Your task to perform on an android device: turn off javascript in the chrome app Image 0: 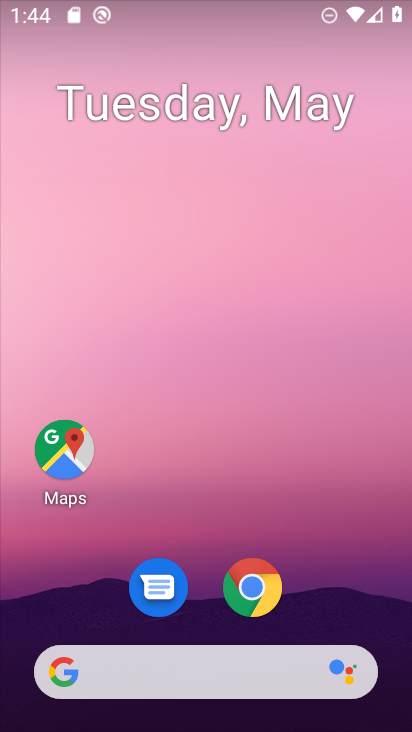
Step 0: click (251, 592)
Your task to perform on an android device: turn off javascript in the chrome app Image 1: 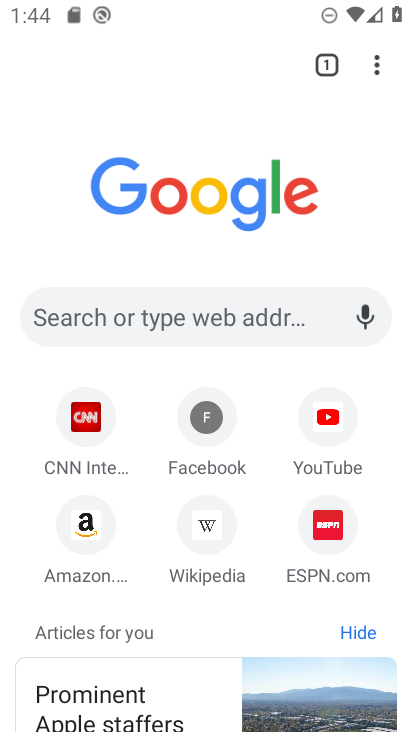
Step 1: click (367, 54)
Your task to perform on an android device: turn off javascript in the chrome app Image 2: 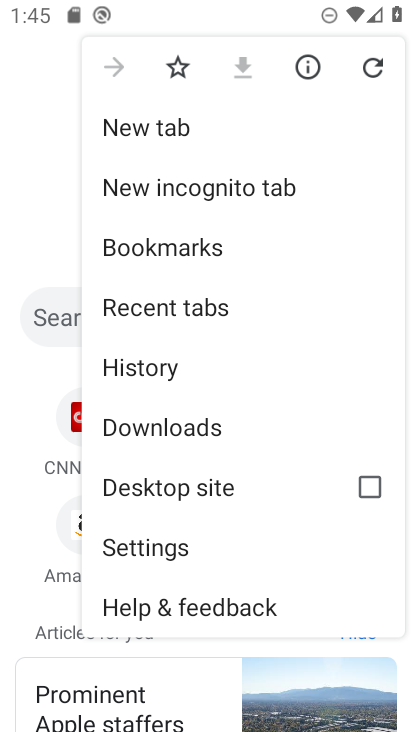
Step 2: click (205, 558)
Your task to perform on an android device: turn off javascript in the chrome app Image 3: 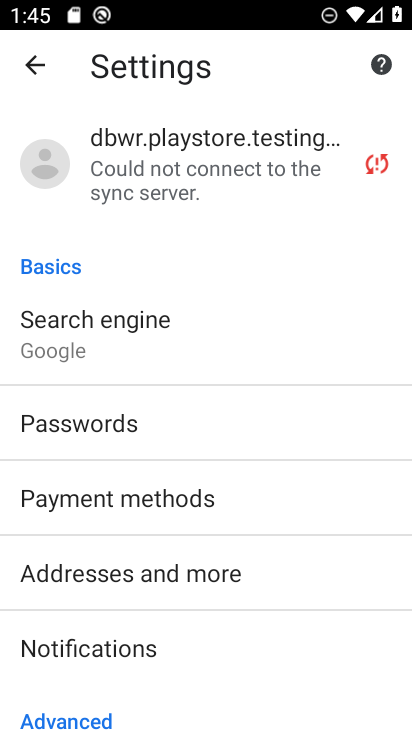
Step 3: drag from (183, 673) to (229, 112)
Your task to perform on an android device: turn off javascript in the chrome app Image 4: 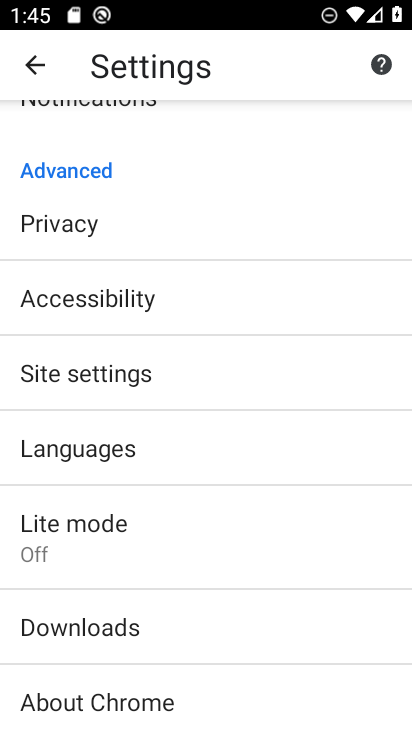
Step 4: click (114, 361)
Your task to perform on an android device: turn off javascript in the chrome app Image 5: 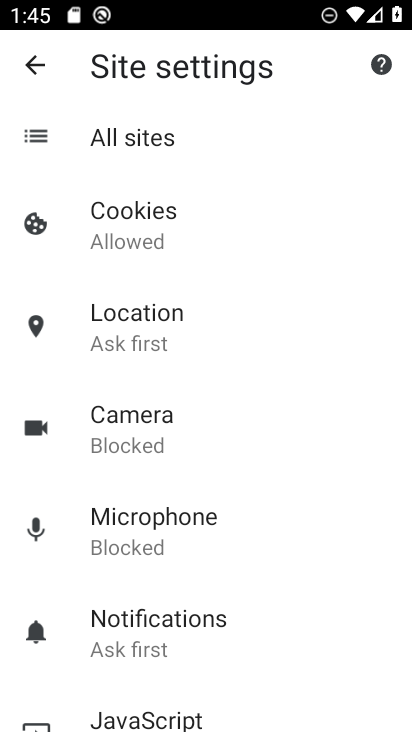
Step 5: click (152, 712)
Your task to perform on an android device: turn off javascript in the chrome app Image 6: 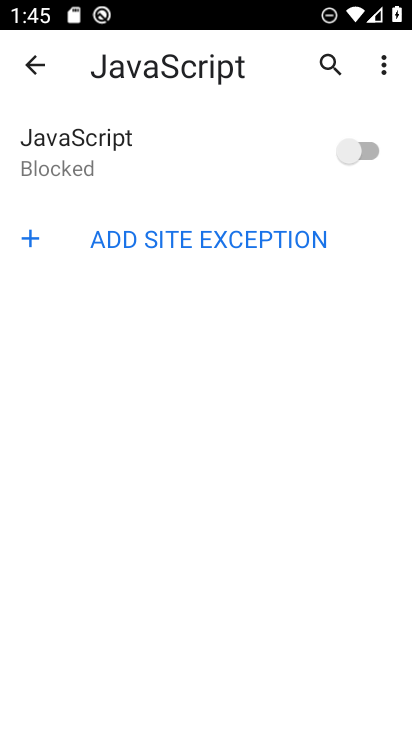
Step 6: click (152, 712)
Your task to perform on an android device: turn off javascript in the chrome app Image 7: 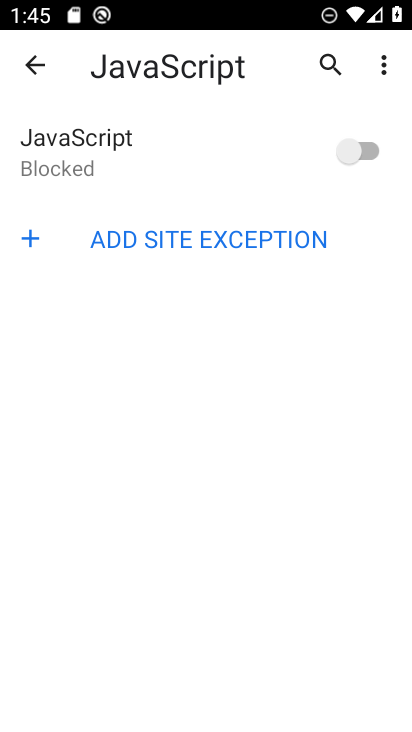
Step 7: click (152, 712)
Your task to perform on an android device: turn off javascript in the chrome app Image 8: 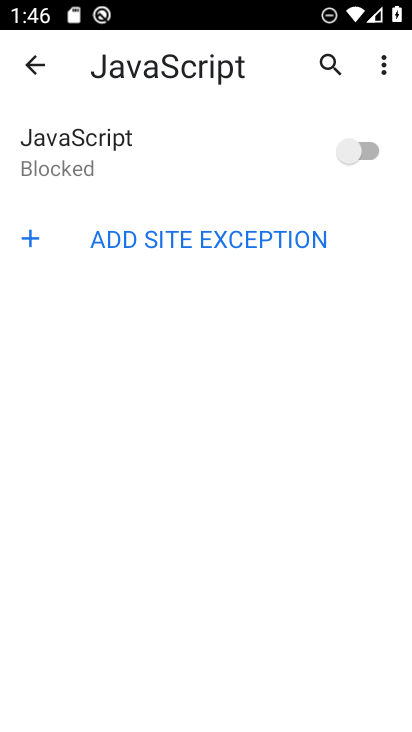
Step 8: click (152, 712)
Your task to perform on an android device: turn off javascript in the chrome app Image 9: 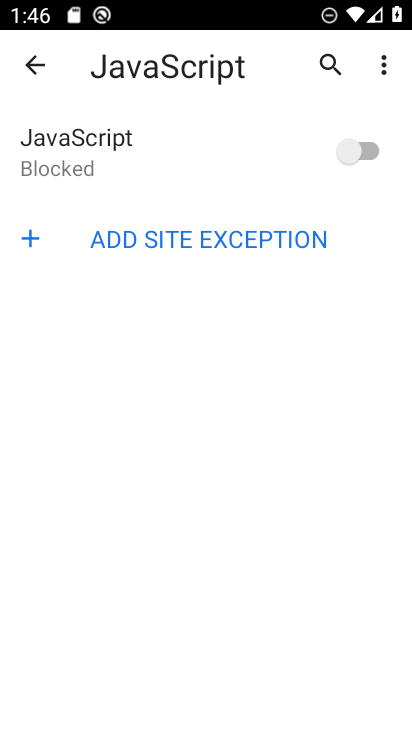
Step 9: click (152, 712)
Your task to perform on an android device: turn off javascript in the chrome app Image 10: 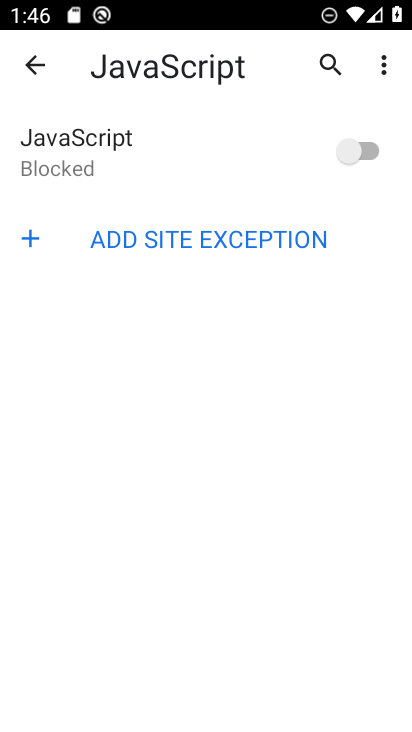
Step 10: click (152, 712)
Your task to perform on an android device: turn off javascript in the chrome app Image 11: 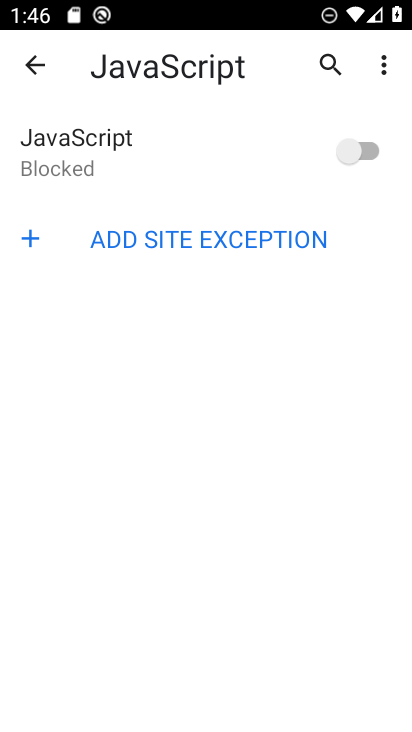
Step 11: task complete